Your task to perform on an android device: Is it going to rain this weekend? Image 0: 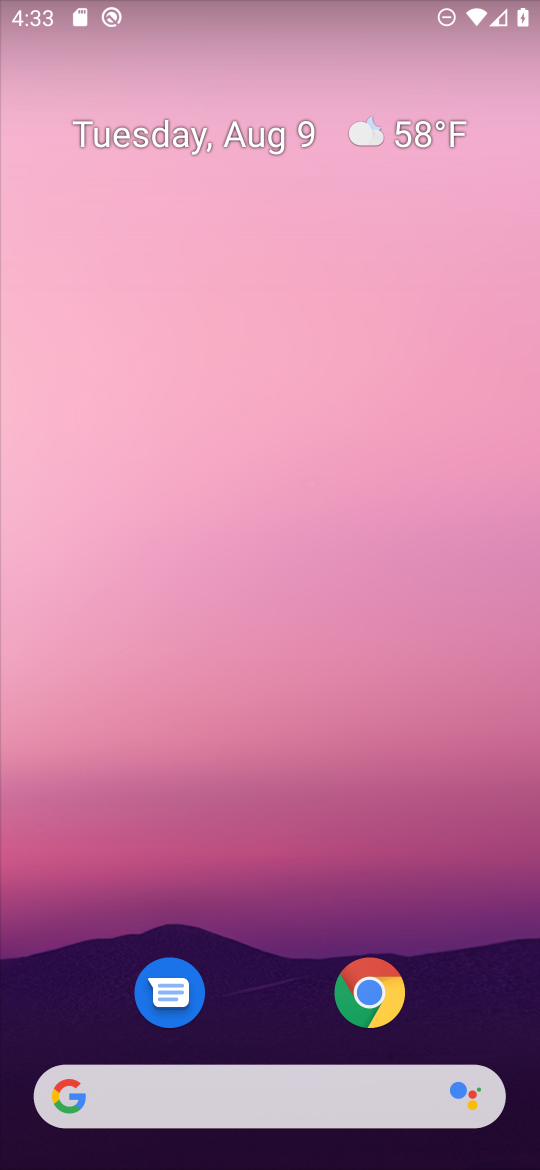
Step 0: drag from (289, 1110) to (260, 146)
Your task to perform on an android device: Is it going to rain this weekend? Image 1: 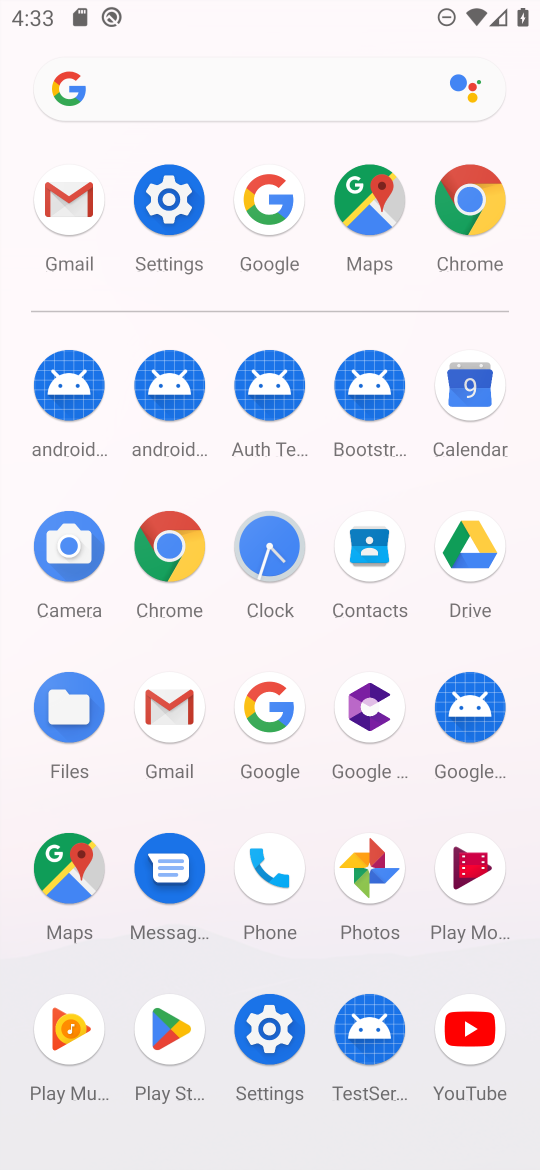
Step 1: click (258, 702)
Your task to perform on an android device: Is it going to rain this weekend? Image 2: 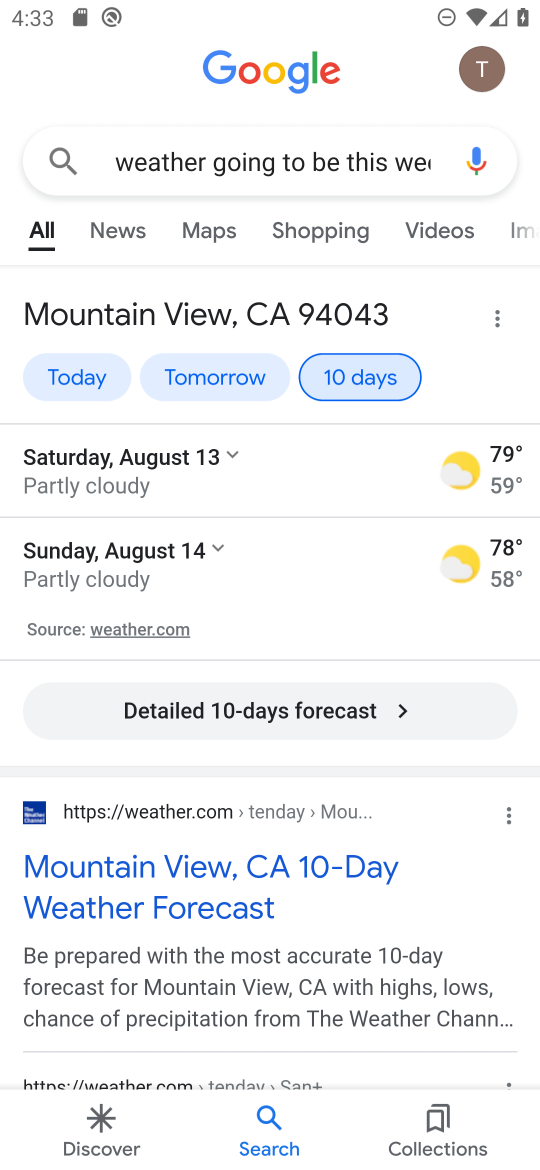
Step 2: click (385, 164)
Your task to perform on an android device: Is it going to rain this weekend? Image 3: 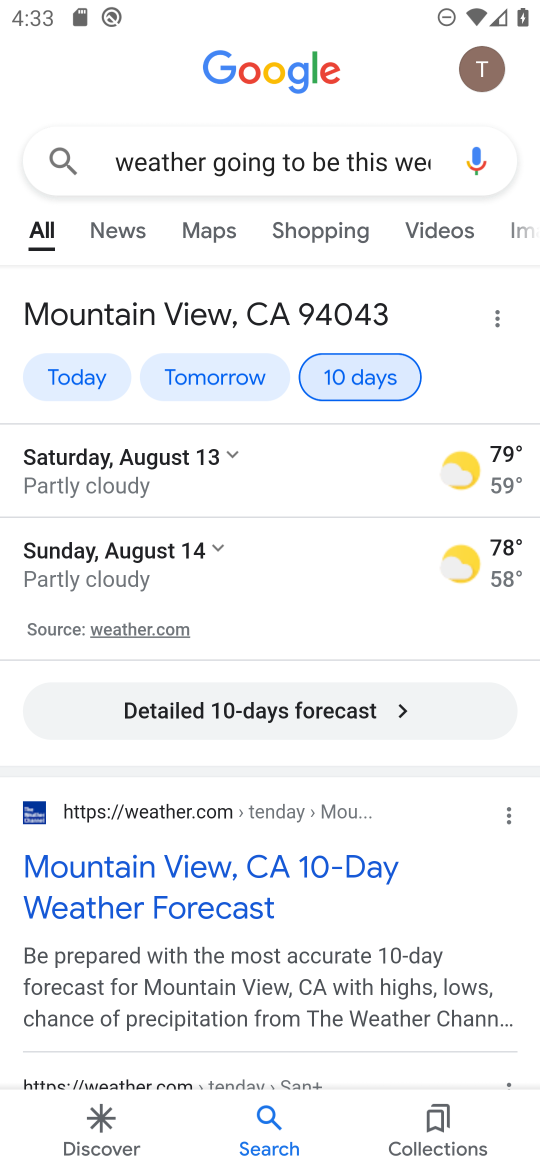
Step 3: click (385, 164)
Your task to perform on an android device: Is it going to rain this weekend? Image 4: 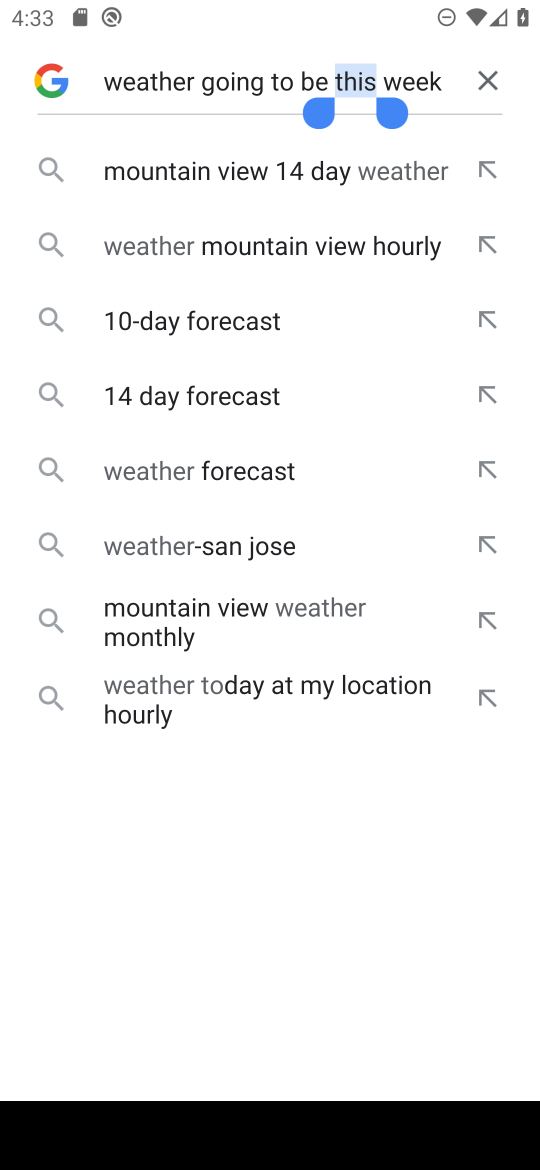
Step 4: click (497, 72)
Your task to perform on an android device: Is it going to rain this weekend? Image 5: 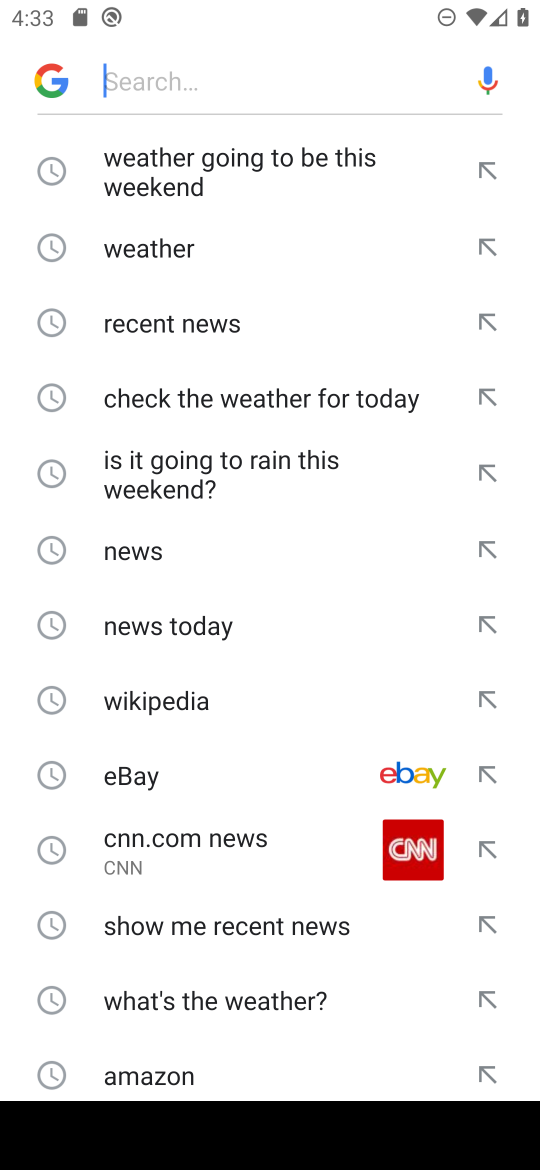
Step 5: click (246, 473)
Your task to perform on an android device: Is it going to rain this weekend? Image 6: 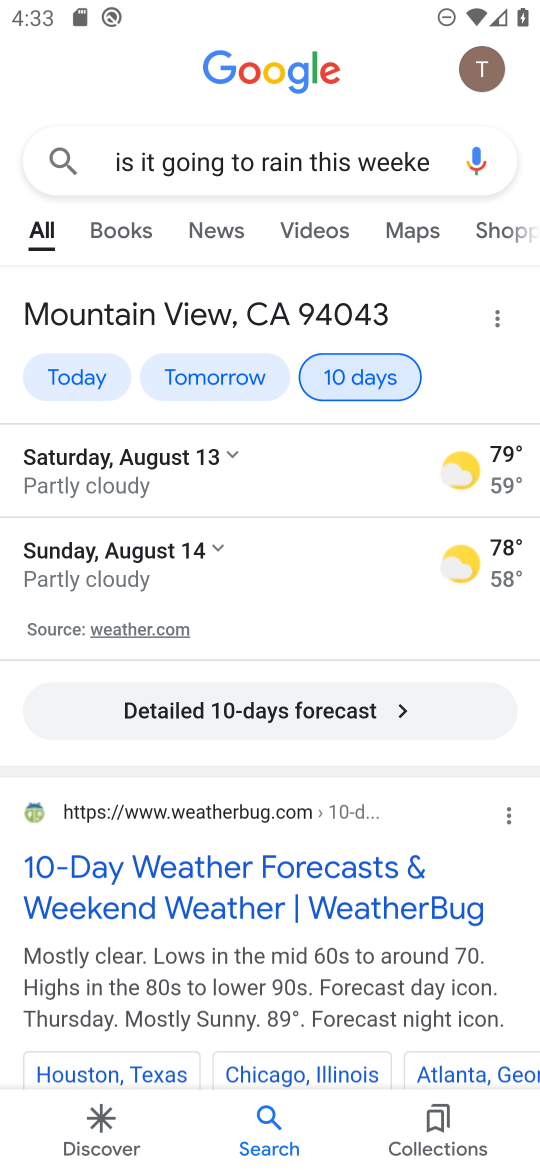
Step 6: task complete